Your task to perform on an android device: Search for Mexican restaurants on Maps Image 0: 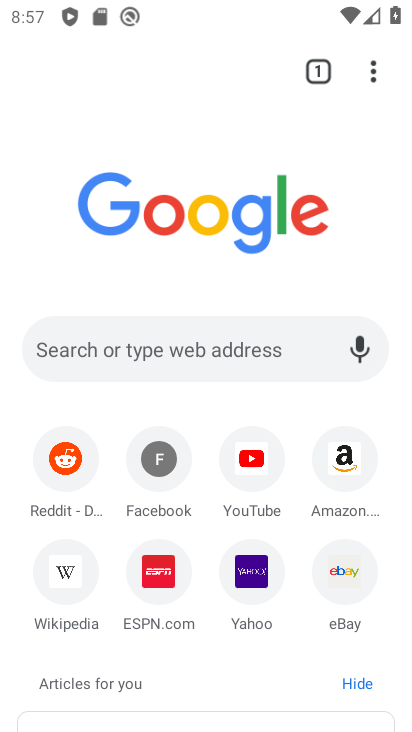
Step 0: press home button
Your task to perform on an android device: Search for Mexican restaurants on Maps Image 1: 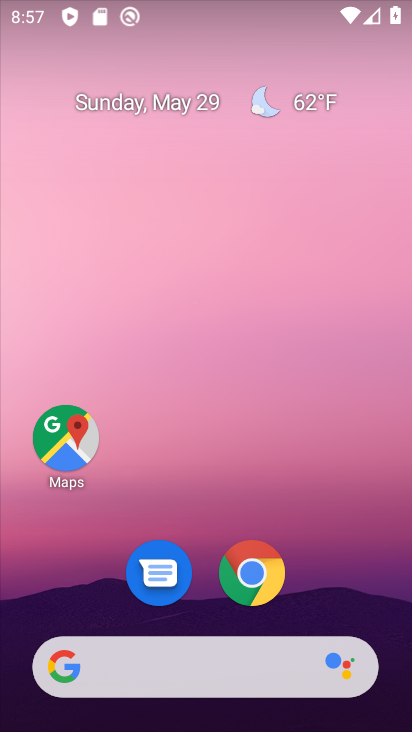
Step 1: click (72, 448)
Your task to perform on an android device: Search for Mexican restaurants on Maps Image 2: 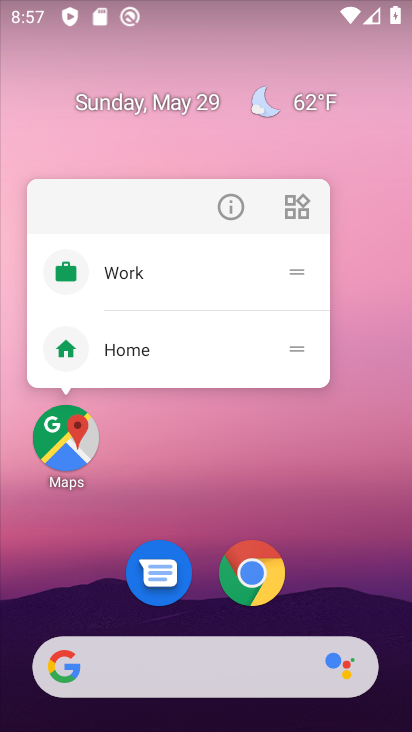
Step 2: click (302, 489)
Your task to perform on an android device: Search for Mexican restaurants on Maps Image 3: 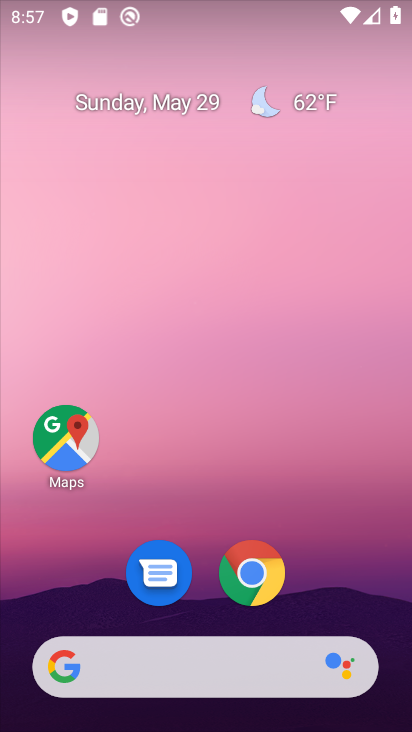
Step 3: drag from (315, 608) to (241, 0)
Your task to perform on an android device: Search for Mexican restaurants on Maps Image 4: 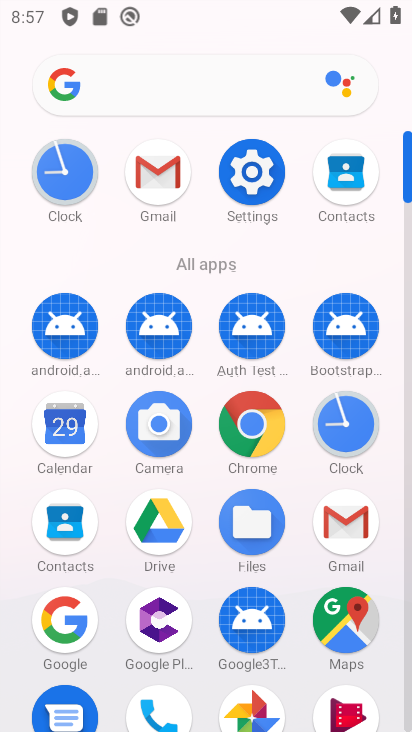
Step 4: click (340, 627)
Your task to perform on an android device: Search for Mexican restaurants on Maps Image 5: 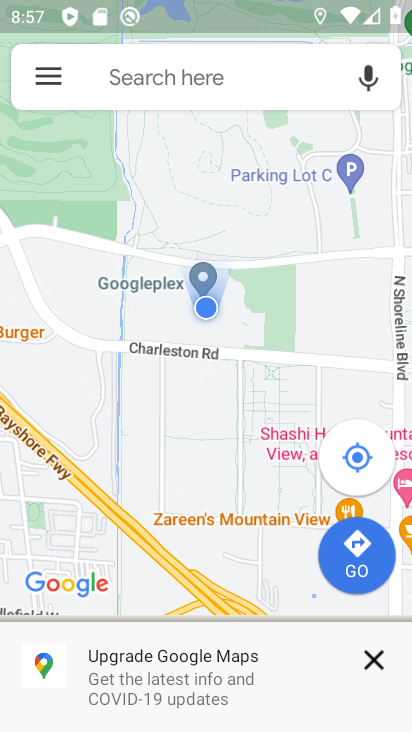
Step 5: click (118, 90)
Your task to perform on an android device: Search for Mexican restaurants on Maps Image 6: 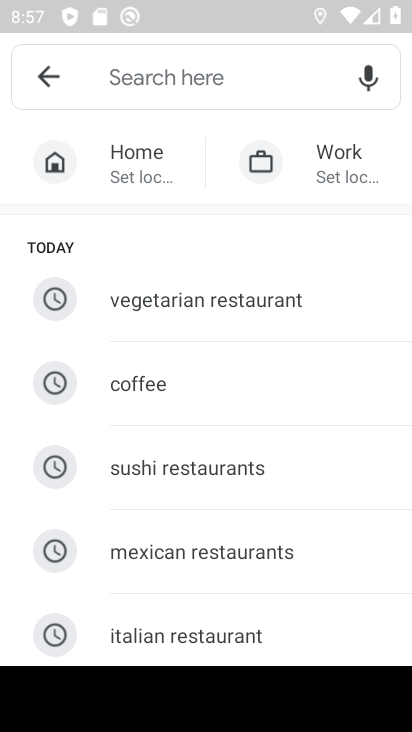
Step 6: click (213, 553)
Your task to perform on an android device: Search for Mexican restaurants on Maps Image 7: 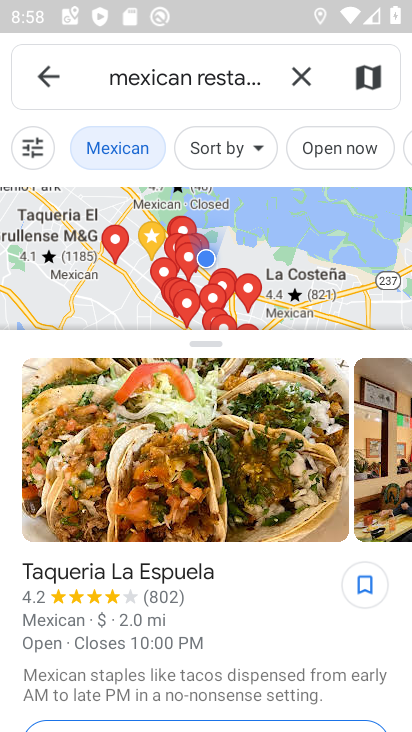
Step 7: task complete